Your task to perform on an android device: check android version Image 0: 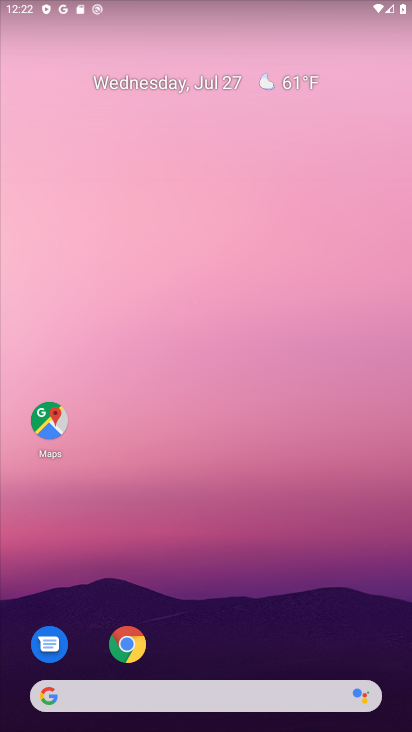
Step 0: drag from (198, 629) to (271, 154)
Your task to perform on an android device: check android version Image 1: 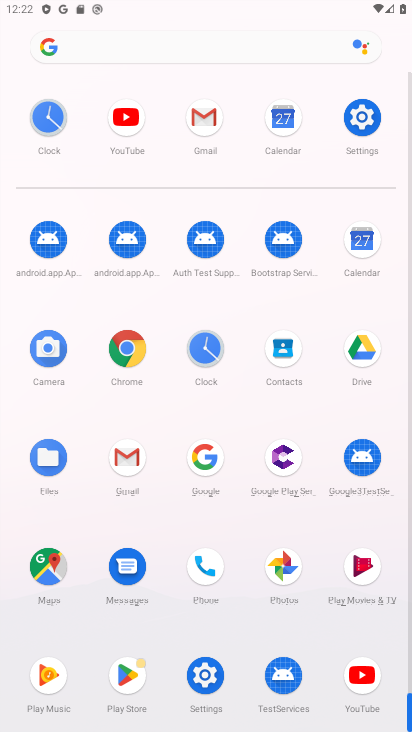
Step 1: click (198, 666)
Your task to perform on an android device: check android version Image 2: 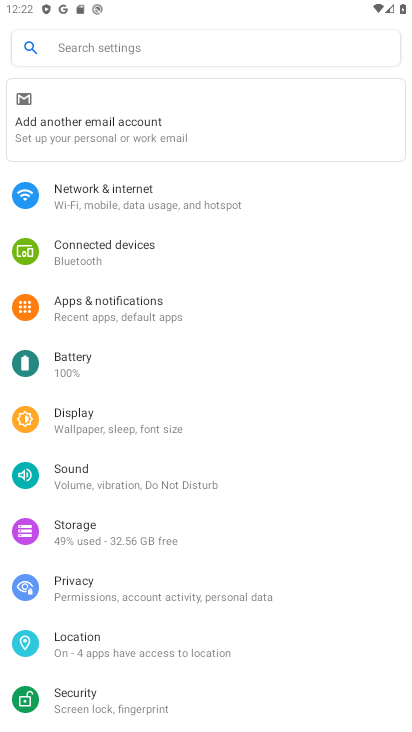
Step 2: click (354, 106)
Your task to perform on an android device: check android version Image 3: 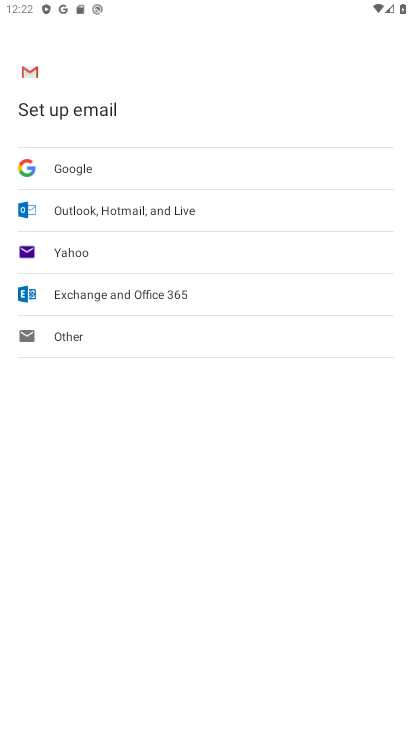
Step 3: press back button
Your task to perform on an android device: check android version Image 4: 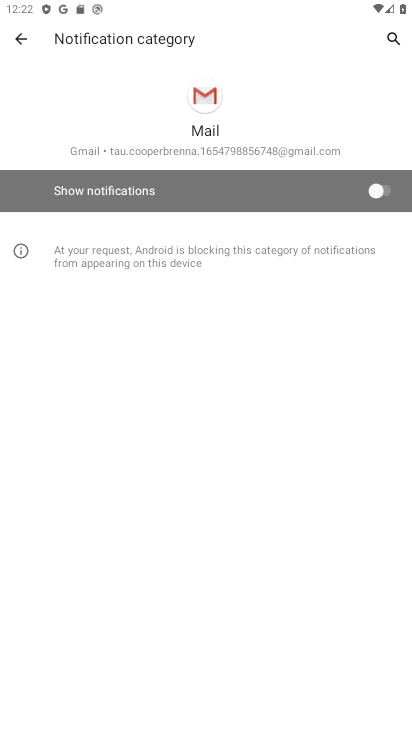
Step 4: press back button
Your task to perform on an android device: check android version Image 5: 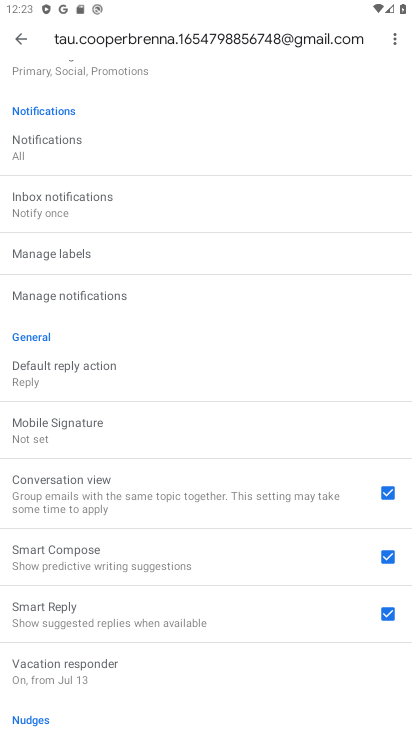
Step 5: press home button
Your task to perform on an android device: check android version Image 6: 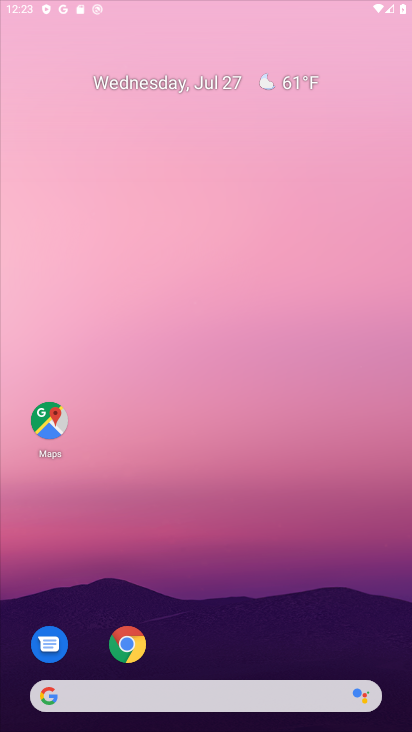
Step 6: drag from (153, 681) to (353, 77)
Your task to perform on an android device: check android version Image 7: 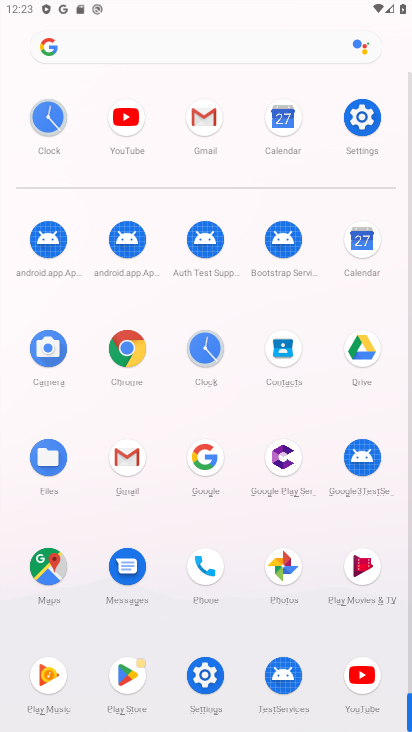
Step 7: click (361, 123)
Your task to perform on an android device: check android version Image 8: 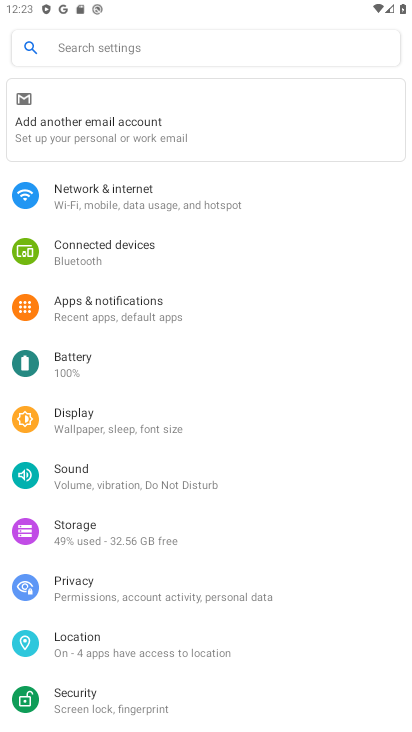
Step 8: drag from (147, 634) to (311, 155)
Your task to perform on an android device: check android version Image 9: 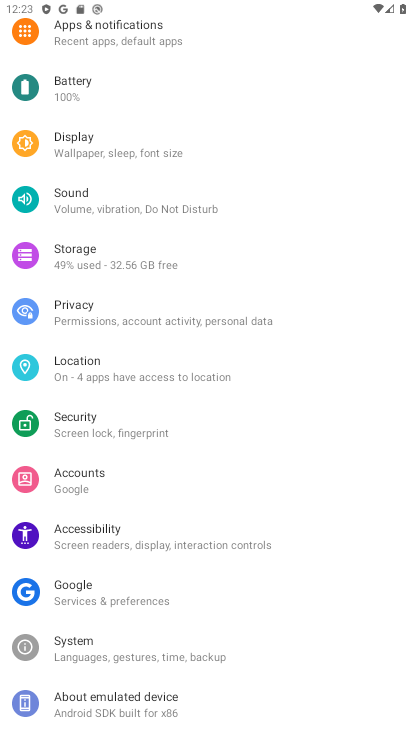
Step 9: click (109, 715)
Your task to perform on an android device: check android version Image 10: 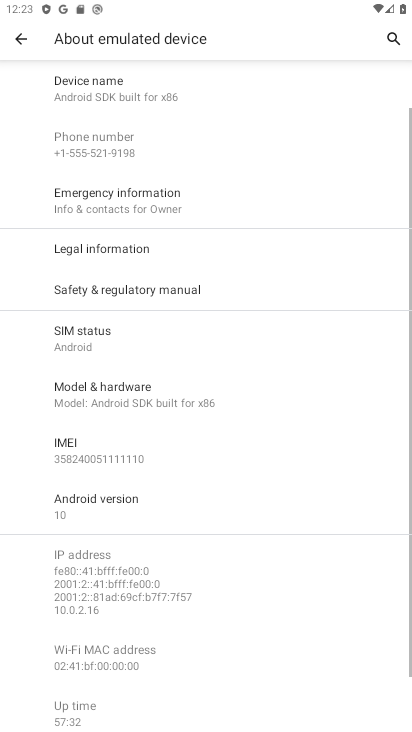
Step 10: click (105, 514)
Your task to perform on an android device: check android version Image 11: 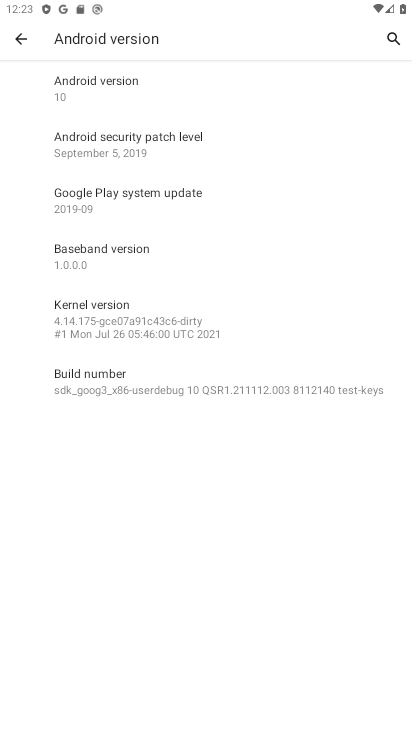
Step 11: task complete